Your task to perform on an android device: Open Google Chrome Image 0: 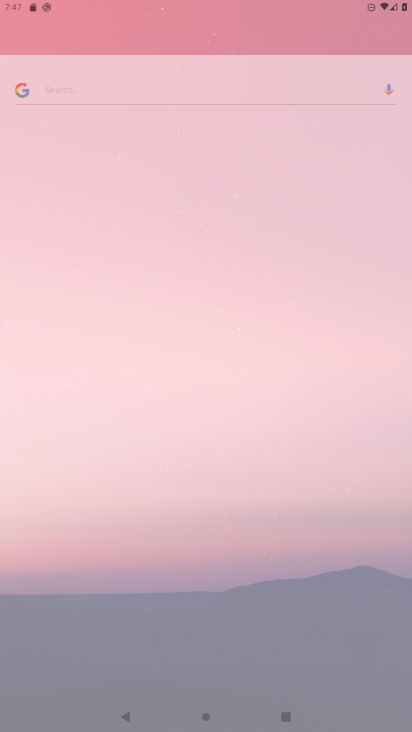
Step 0: click (114, 23)
Your task to perform on an android device: Open Google Chrome Image 1: 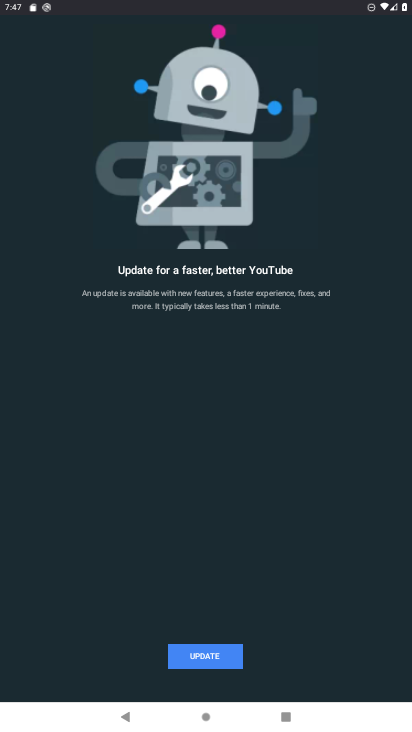
Step 1: press back button
Your task to perform on an android device: Open Google Chrome Image 2: 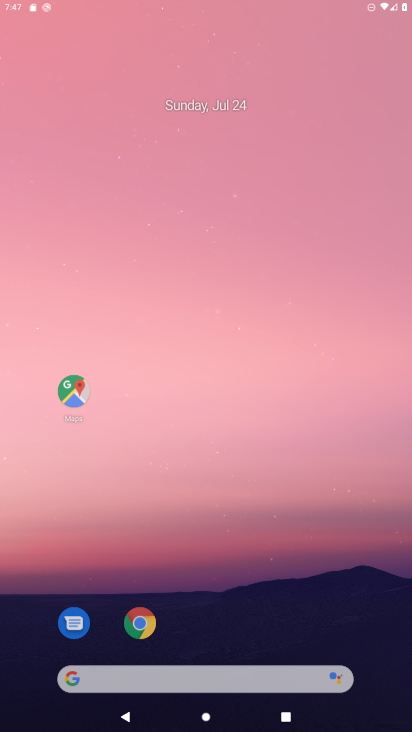
Step 2: drag from (391, 641) to (170, 60)
Your task to perform on an android device: Open Google Chrome Image 3: 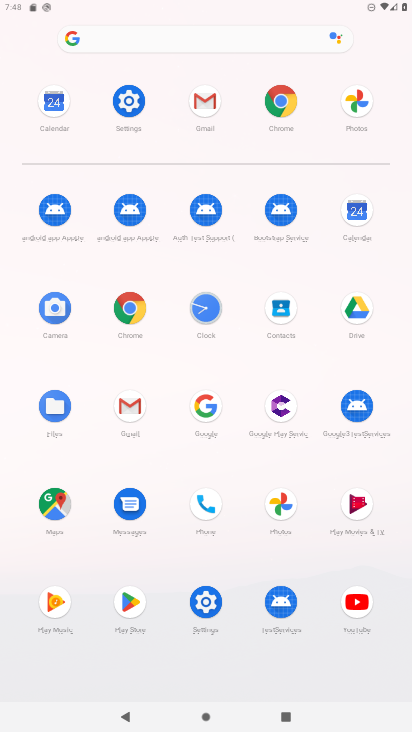
Step 3: click (128, 314)
Your task to perform on an android device: Open Google Chrome Image 4: 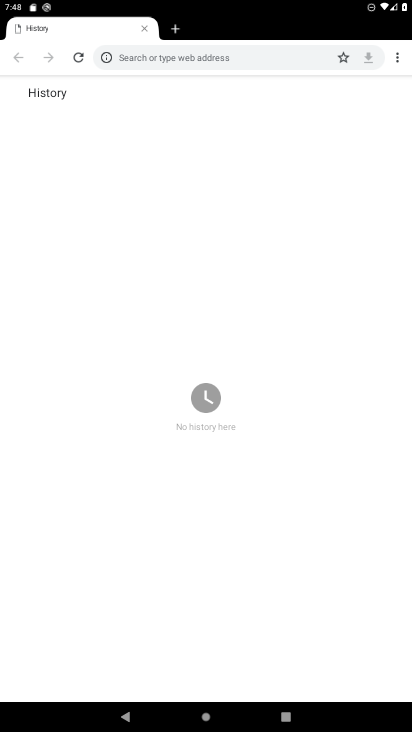
Step 4: task complete